Your task to perform on an android device: Search for vegetarian restaurants on Maps Image 0: 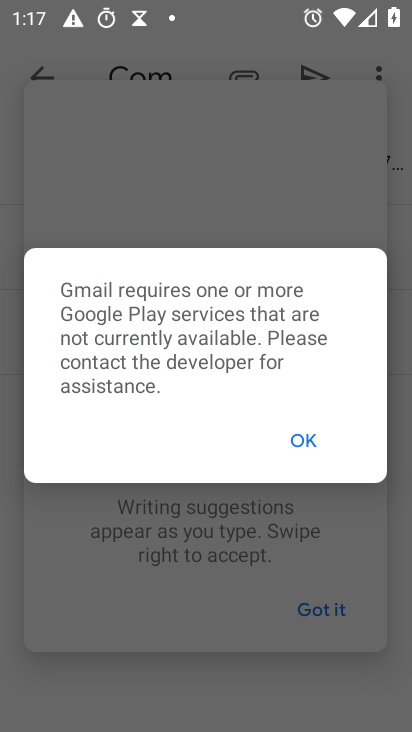
Step 0: press home button
Your task to perform on an android device: Search for vegetarian restaurants on Maps Image 1: 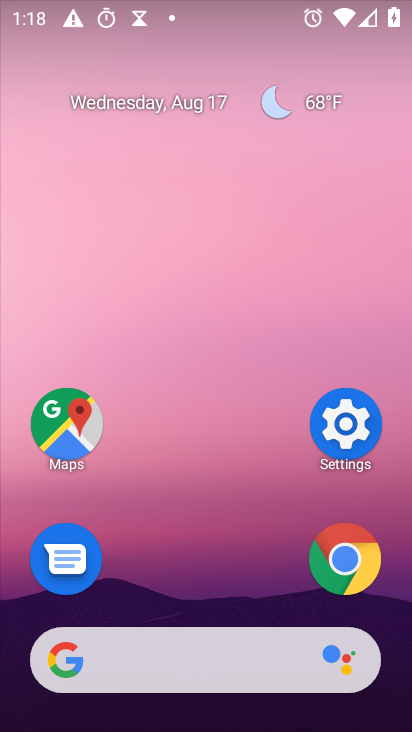
Step 1: click (63, 435)
Your task to perform on an android device: Search for vegetarian restaurants on Maps Image 2: 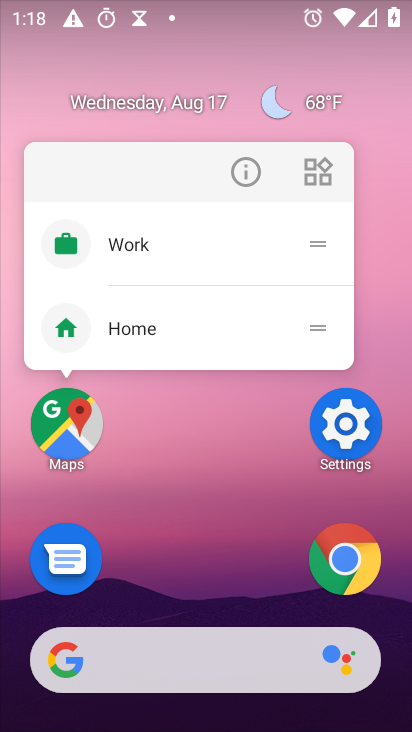
Step 2: click (63, 435)
Your task to perform on an android device: Search for vegetarian restaurants on Maps Image 3: 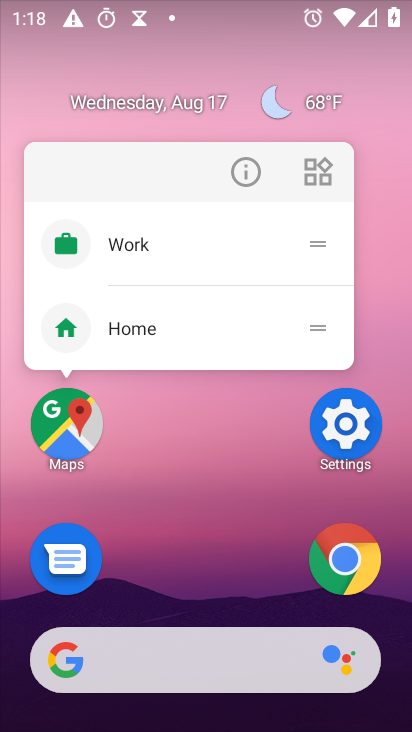
Step 3: click (63, 435)
Your task to perform on an android device: Search for vegetarian restaurants on Maps Image 4: 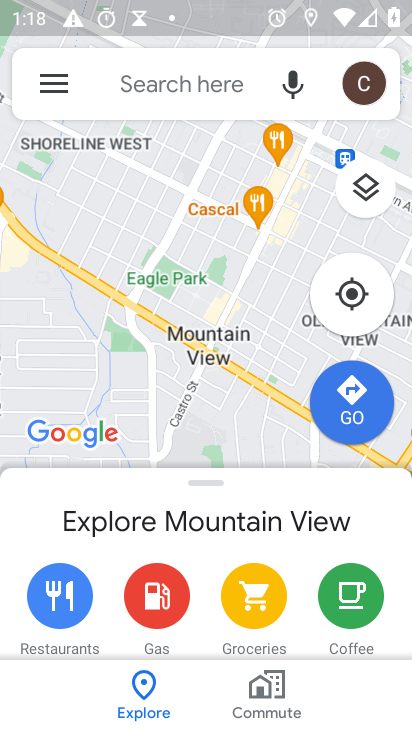
Step 4: click (140, 89)
Your task to perform on an android device: Search for vegetarian restaurants on Maps Image 5: 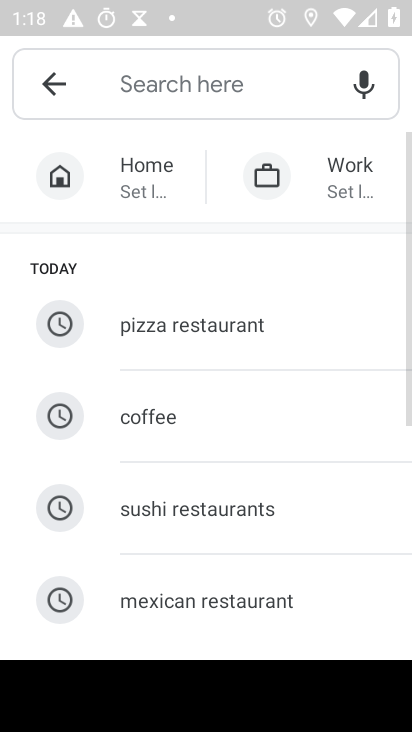
Step 5: drag from (226, 571) to (233, 163)
Your task to perform on an android device: Search for vegetarian restaurants on Maps Image 6: 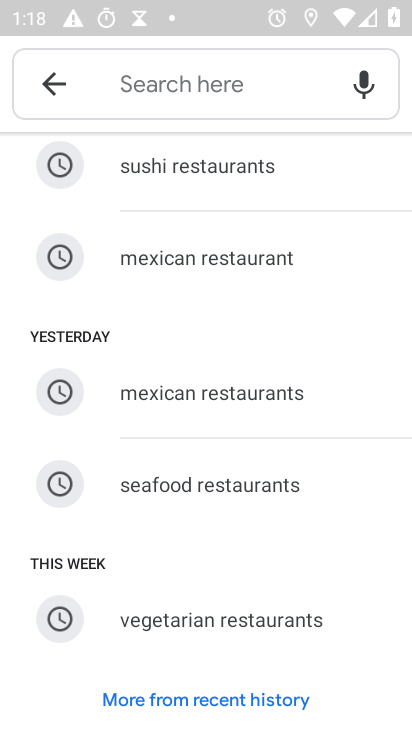
Step 6: click (216, 617)
Your task to perform on an android device: Search for vegetarian restaurants on Maps Image 7: 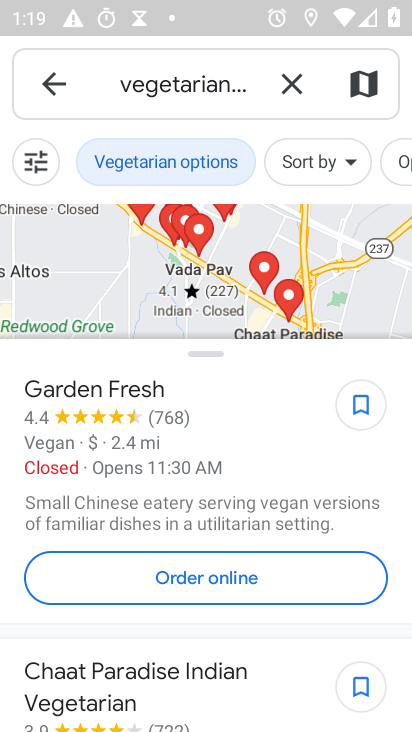
Step 7: task complete